Your task to perform on an android device: toggle priority inbox in the gmail app Image 0: 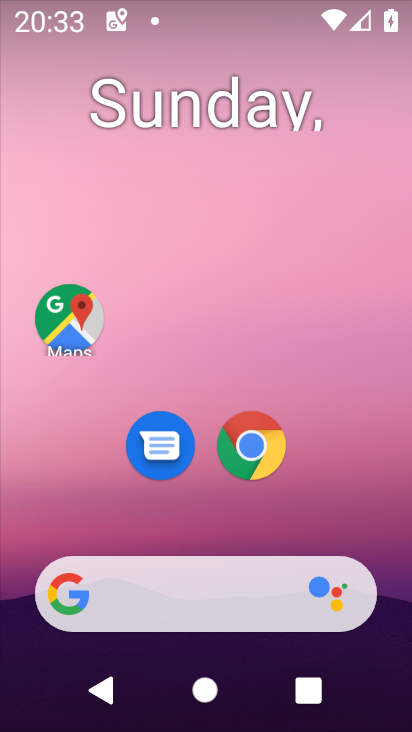
Step 0: press home button
Your task to perform on an android device: toggle priority inbox in the gmail app Image 1: 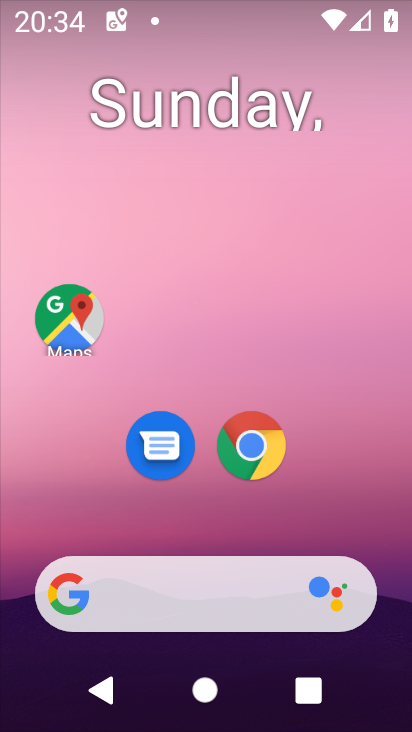
Step 1: drag from (81, 548) to (270, 115)
Your task to perform on an android device: toggle priority inbox in the gmail app Image 2: 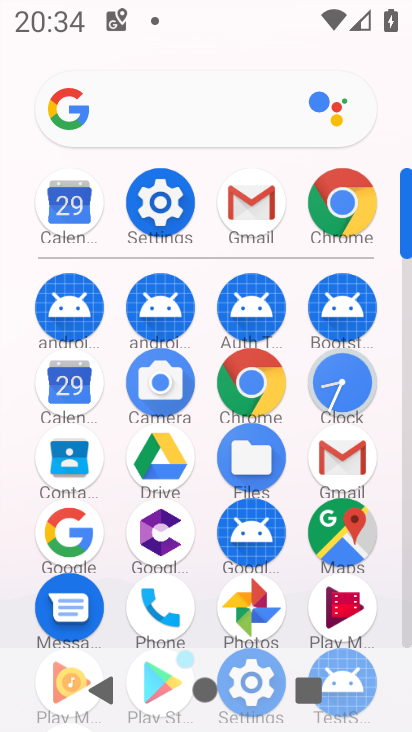
Step 2: click (240, 208)
Your task to perform on an android device: toggle priority inbox in the gmail app Image 3: 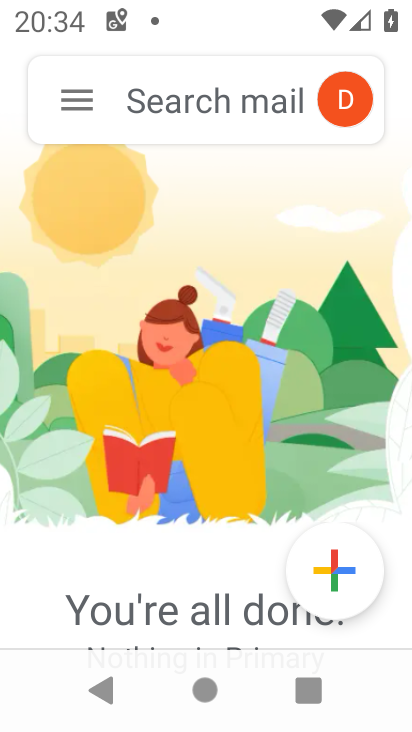
Step 3: click (66, 98)
Your task to perform on an android device: toggle priority inbox in the gmail app Image 4: 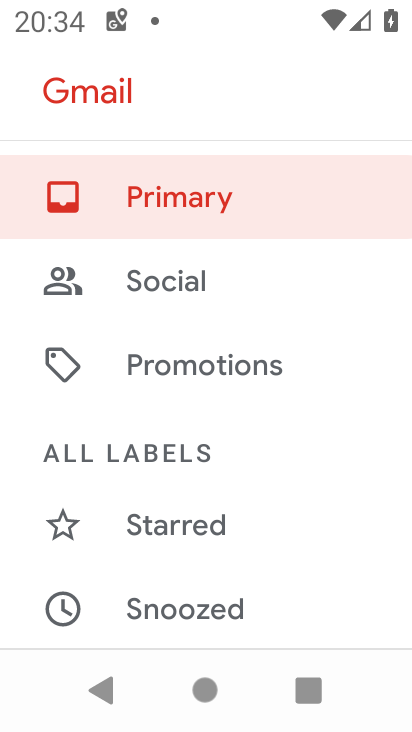
Step 4: drag from (18, 580) to (305, 25)
Your task to perform on an android device: toggle priority inbox in the gmail app Image 5: 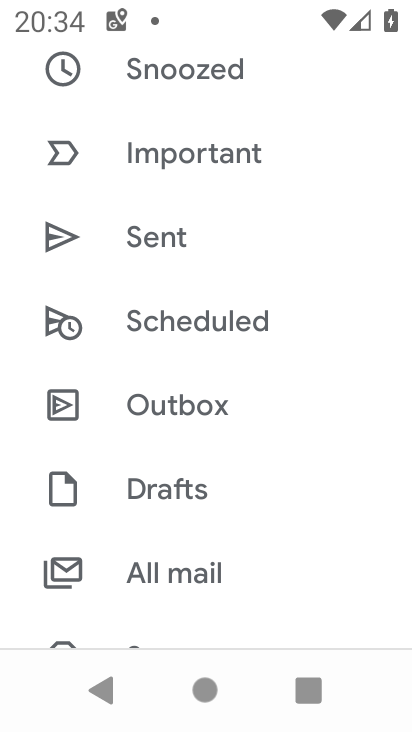
Step 5: drag from (6, 628) to (277, 158)
Your task to perform on an android device: toggle priority inbox in the gmail app Image 6: 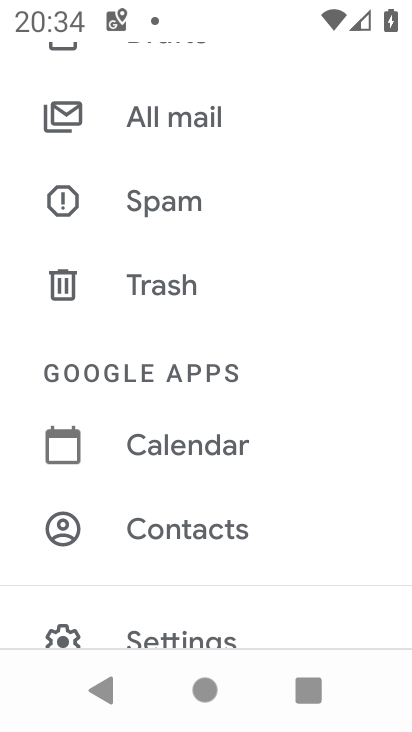
Step 6: drag from (38, 479) to (247, 108)
Your task to perform on an android device: toggle priority inbox in the gmail app Image 7: 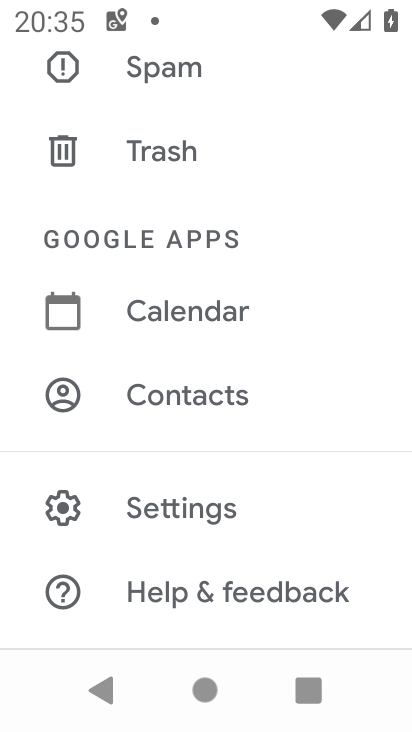
Step 7: click (165, 497)
Your task to perform on an android device: toggle priority inbox in the gmail app Image 8: 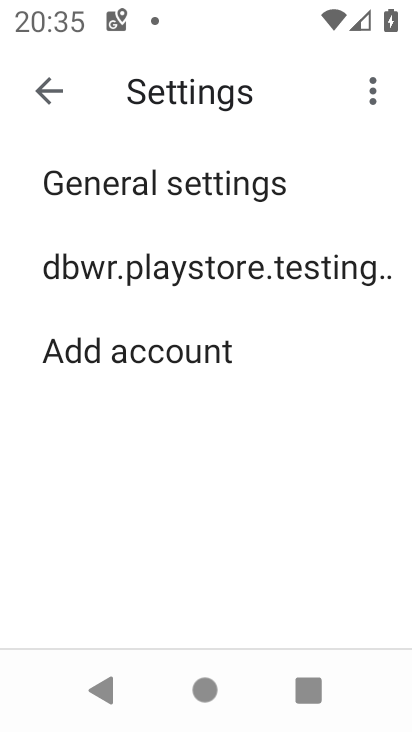
Step 8: click (185, 269)
Your task to perform on an android device: toggle priority inbox in the gmail app Image 9: 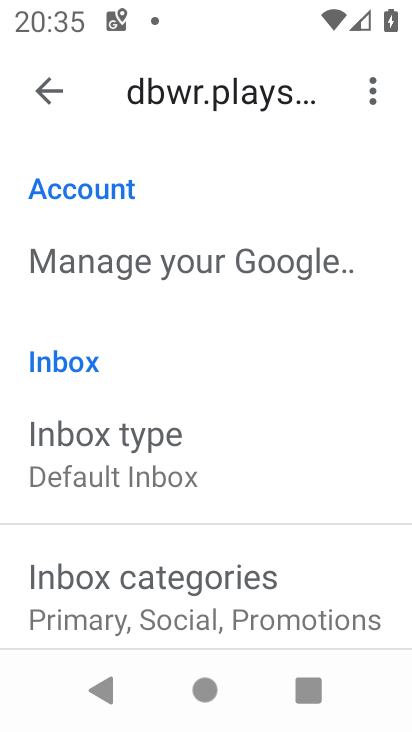
Step 9: click (124, 433)
Your task to perform on an android device: toggle priority inbox in the gmail app Image 10: 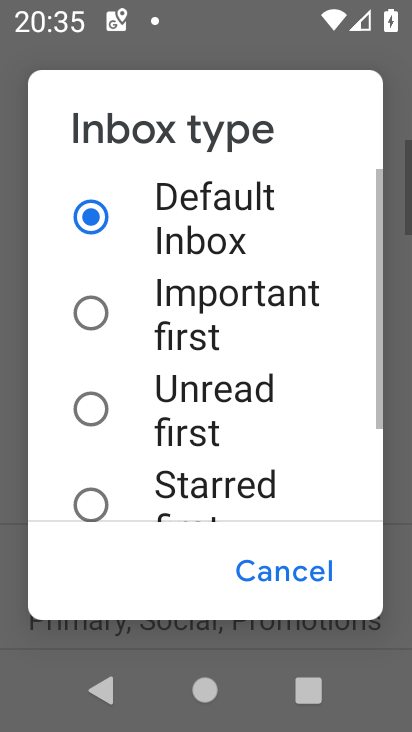
Step 10: drag from (133, 479) to (315, 90)
Your task to perform on an android device: toggle priority inbox in the gmail app Image 11: 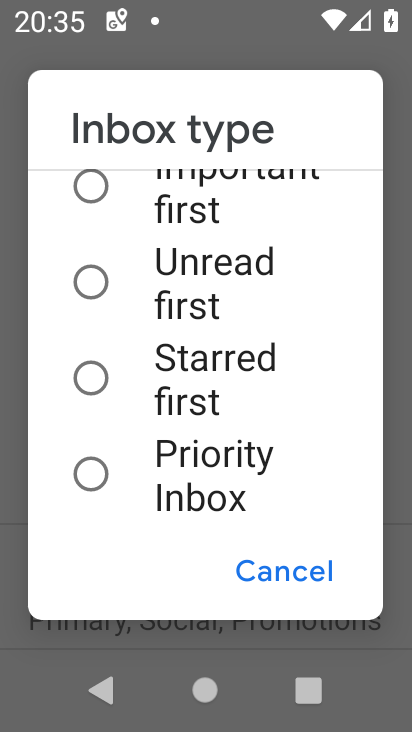
Step 11: click (90, 475)
Your task to perform on an android device: toggle priority inbox in the gmail app Image 12: 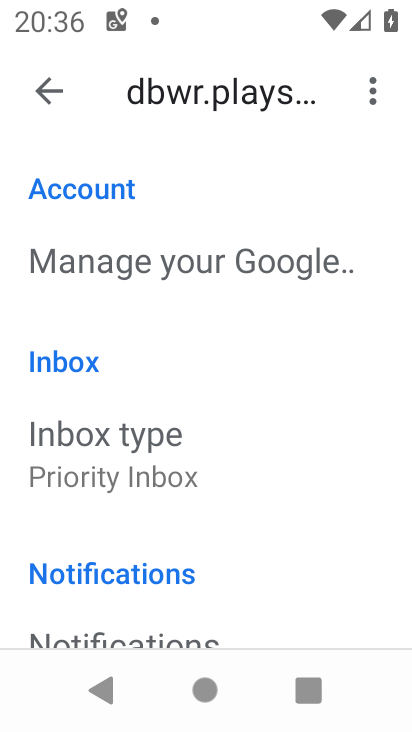
Step 12: task complete